Your task to perform on an android device: Open notification settings Image 0: 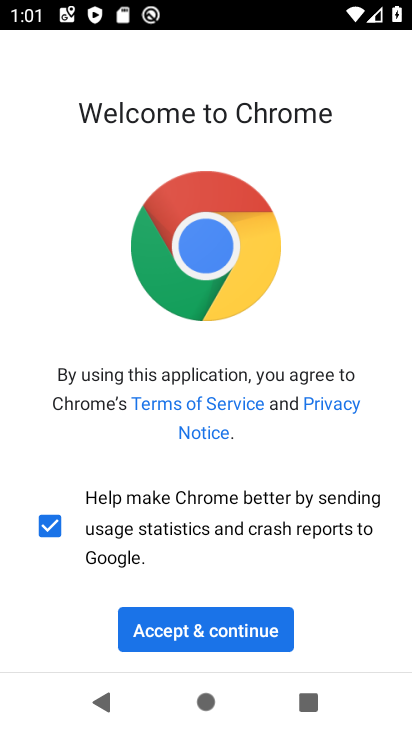
Step 0: click (391, 459)
Your task to perform on an android device: Open notification settings Image 1: 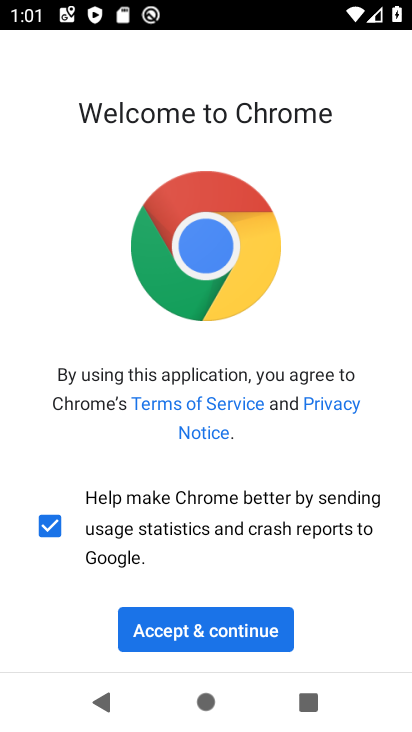
Step 1: press home button
Your task to perform on an android device: Open notification settings Image 2: 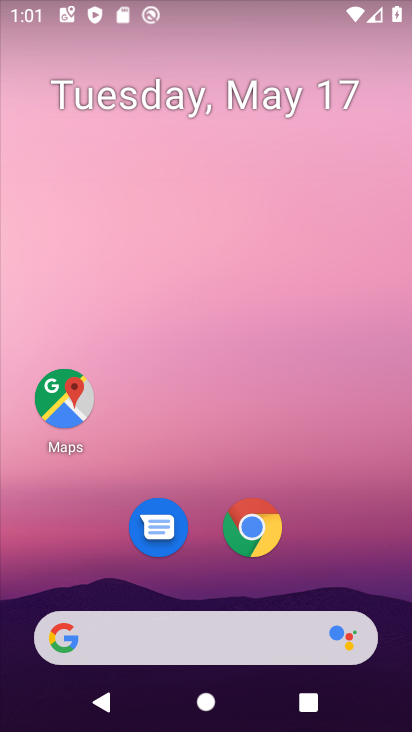
Step 2: drag from (78, 609) to (241, 81)
Your task to perform on an android device: Open notification settings Image 3: 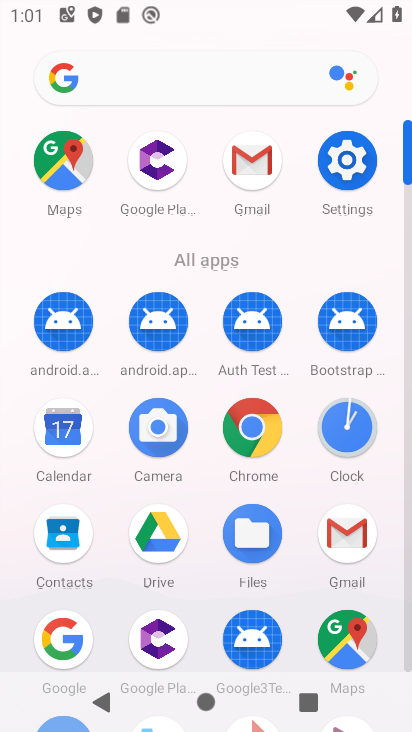
Step 3: drag from (169, 638) to (318, 181)
Your task to perform on an android device: Open notification settings Image 4: 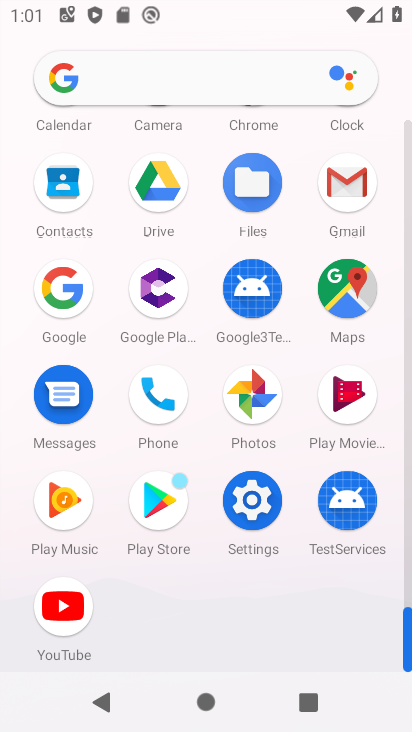
Step 4: click (248, 514)
Your task to perform on an android device: Open notification settings Image 5: 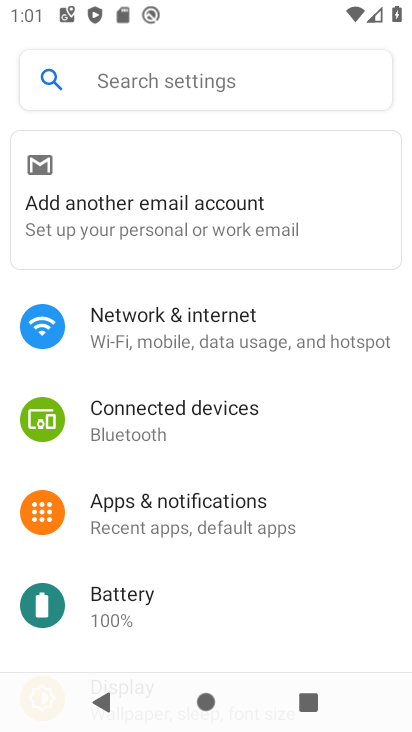
Step 5: drag from (119, 655) to (216, 435)
Your task to perform on an android device: Open notification settings Image 6: 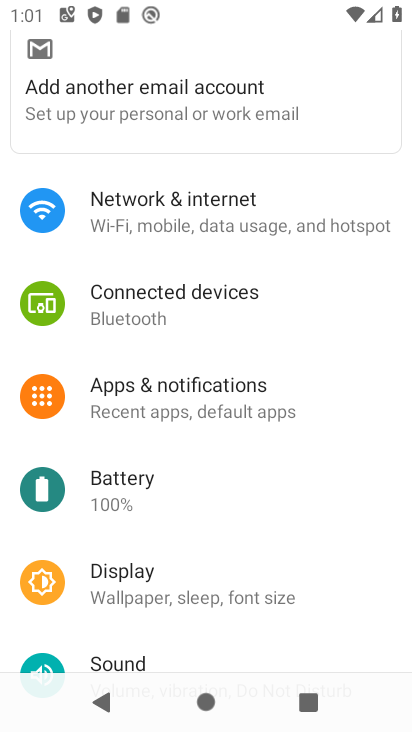
Step 6: click (219, 385)
Your task to perform on an android device: Open notification settings Image 7: 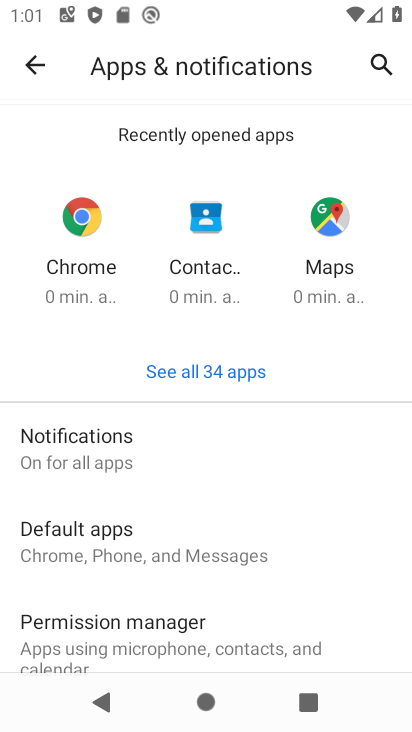
Step 7: drag from (160, 595) to (179, 489)
Your task to perform on an android device: Open notification settings Image 8: 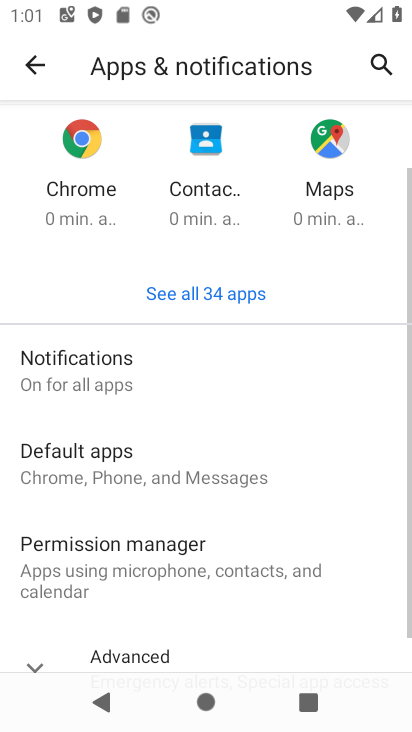
Step 8: click (159, 365)
Your task to perform on an android device: Open notification settings Image 9: 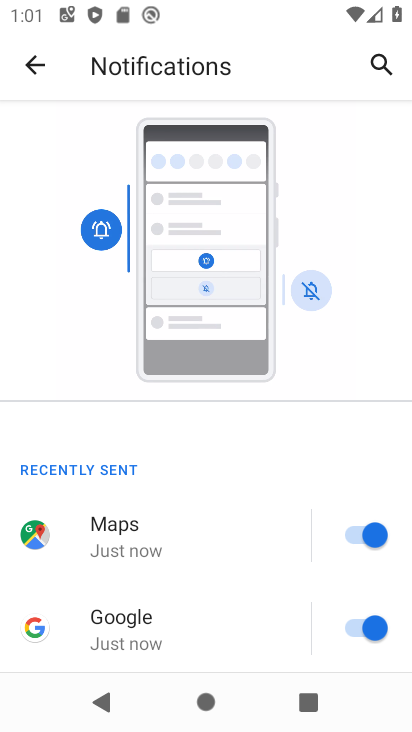
Step 9: task complete